Your task to perform on an android device: Open CNN.com Image 0: 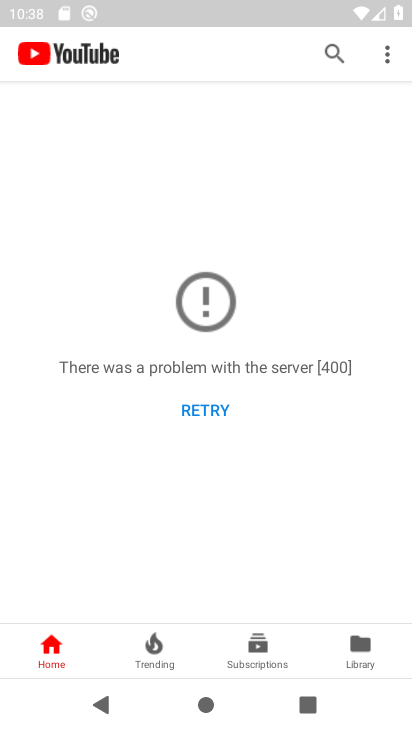
Step 0: press home button
Your task to perform on an android device: Open CNN.com Image 1: 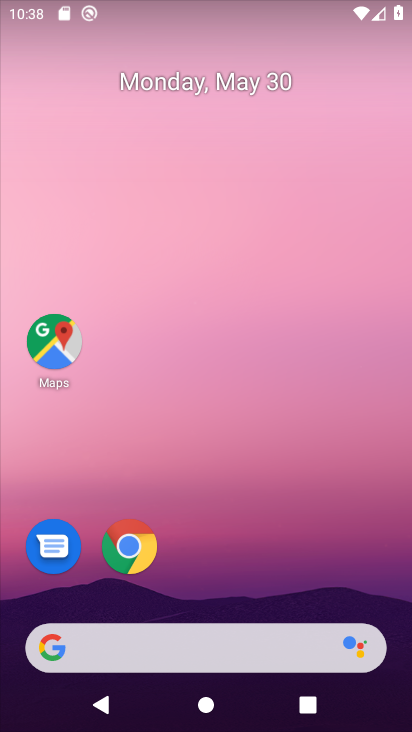
Step 1: click (134, 565)
Your task to perform on an android device: Open CNN.com Image 2: 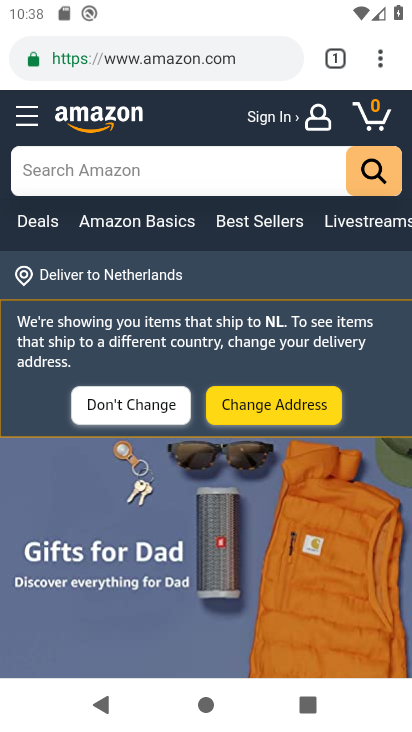
Step 2: click (158, 47)
Your task to perform on an android device: Open CNN.com Image 3: 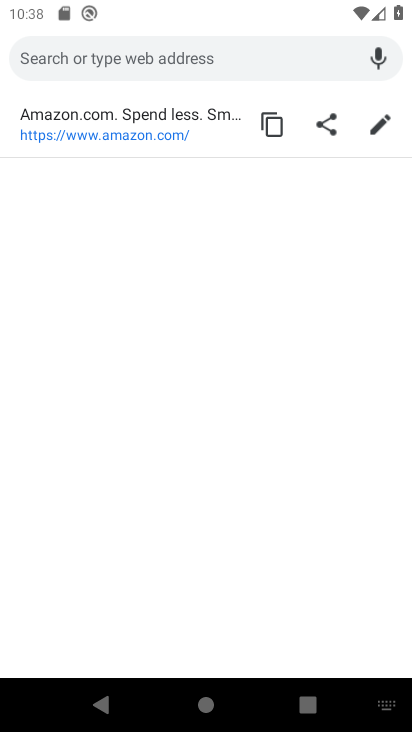
Step 3: type "CNN.com"
Your task to perform on an android device: Open CNN.com Image 4: 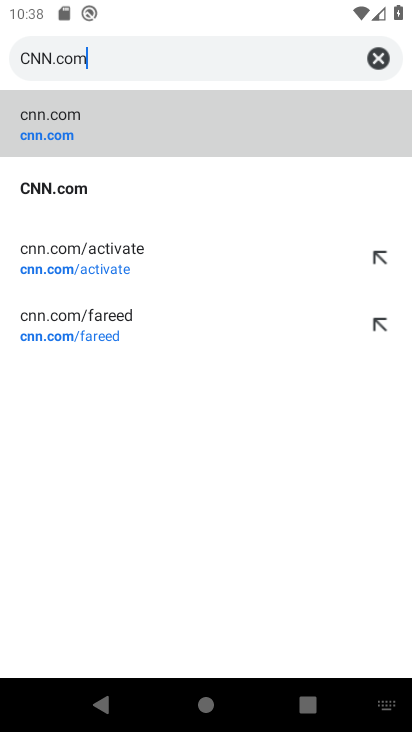
Step 4: click (104, 196)
Your task to perform on an android device: Open CNN.com Image 5: 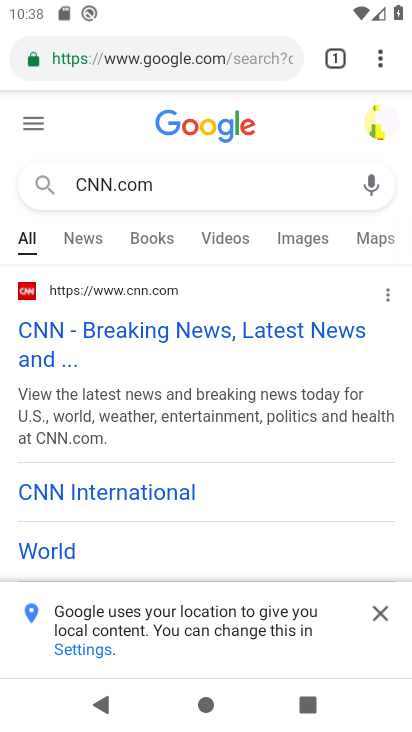
Step 5: task complete